Your task to perform on an android device: turn on data saver in the chrome app Image 0: 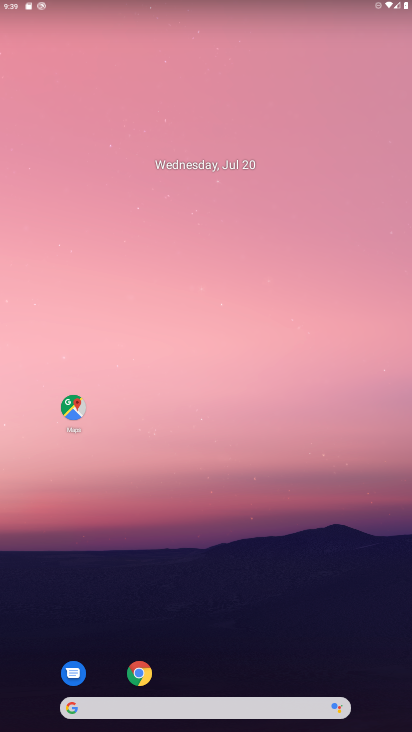
Step 0: drag from (184, 567) to (131, 5)
Your task to perform on an android device: turn on data saver in the chrome app Image 1: 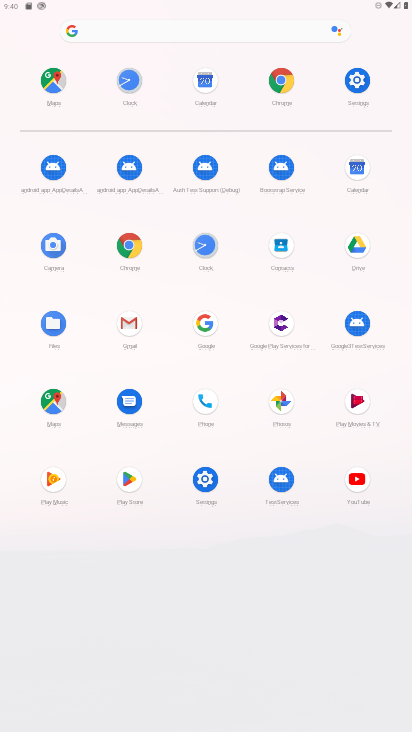
Step 1: click (135, 241)
Your task to perform on an android device: turn on data saver in the chrome app Image 2: 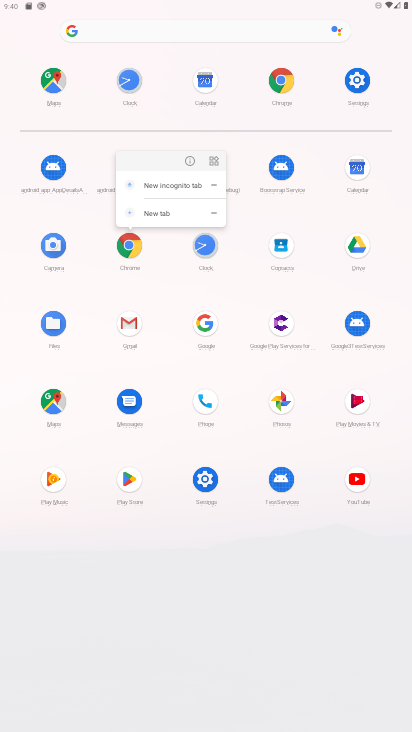
Step 2: click (187, 166)
Your task to perform on an android device: turn on data saver in the chrome app Image 3: 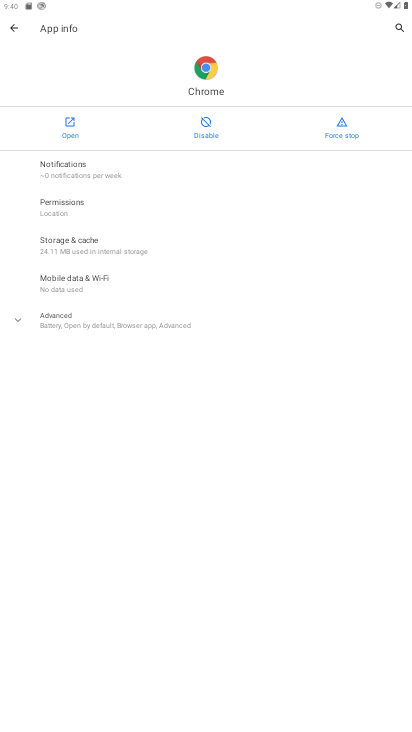
Step 3: click (64, 131)
Your task to perform on an android device: turn on data saver in the chrome app Image 4: 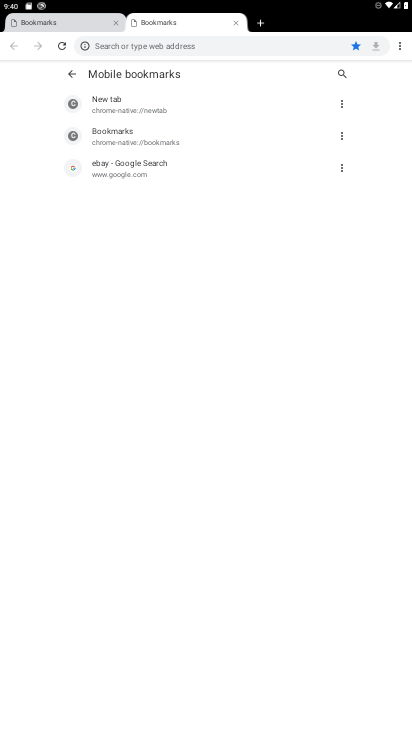
Step 4: drag from (397, 41) to (334, 213)
Your task to perform on an android device: turn on data saver in the chrome app Image 5: 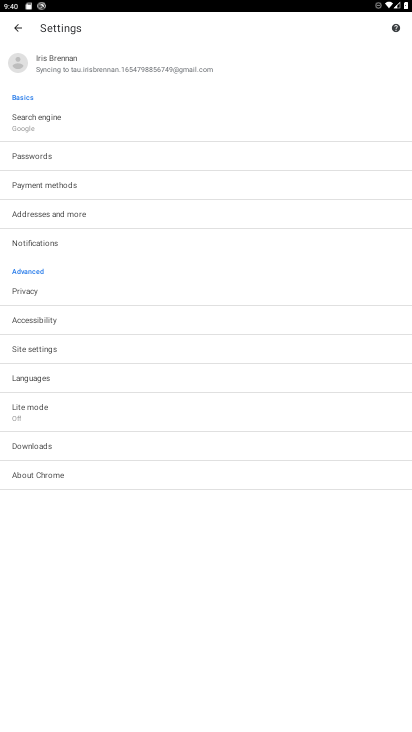
Step 5: click (33, 403)
Your task to perform on an android device: turn on data saver in the chrome app Image 6: 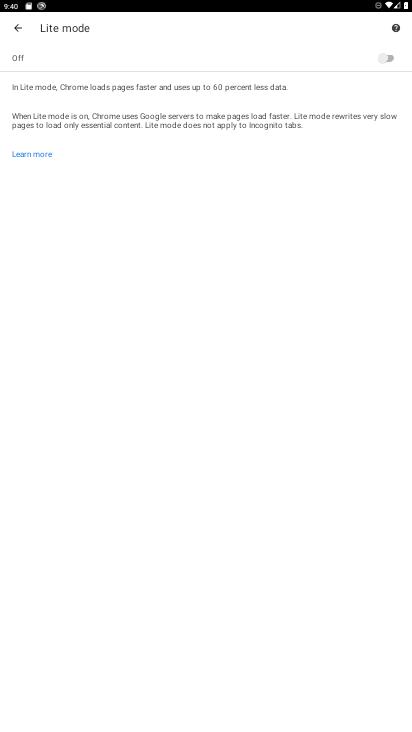
Step 6: click (371, 59)
Your task to perform on an android device: turn on data saver in the chrome app Image 7: 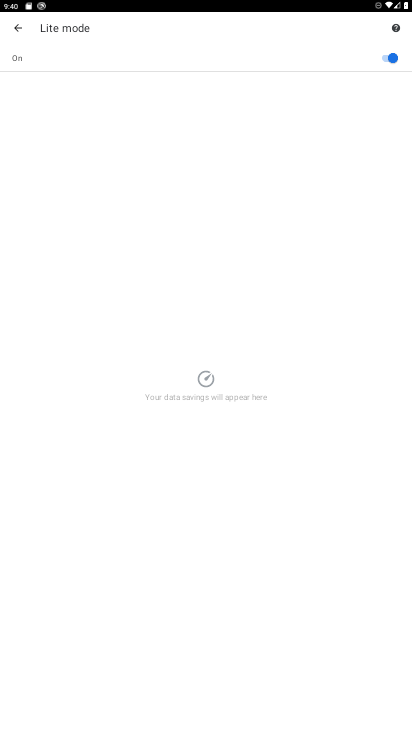
Step 7: task complete